Your task to perform on an android device: turn off airplane mode Image 0: 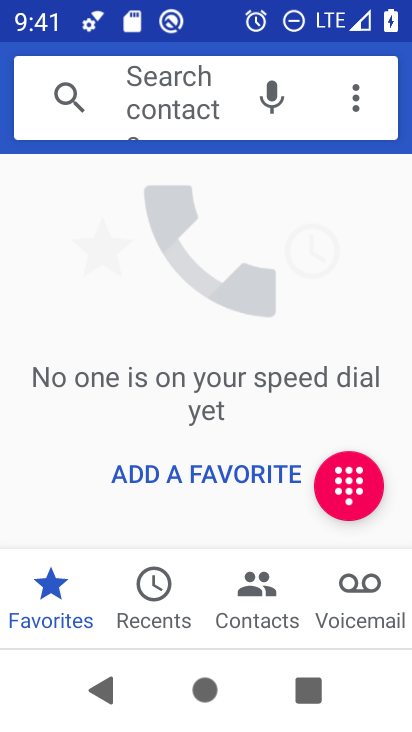
Step 0: drag from (278, 14) to (243, 651)
Your task to perform on an android device: turn off airplane mode Image 1: 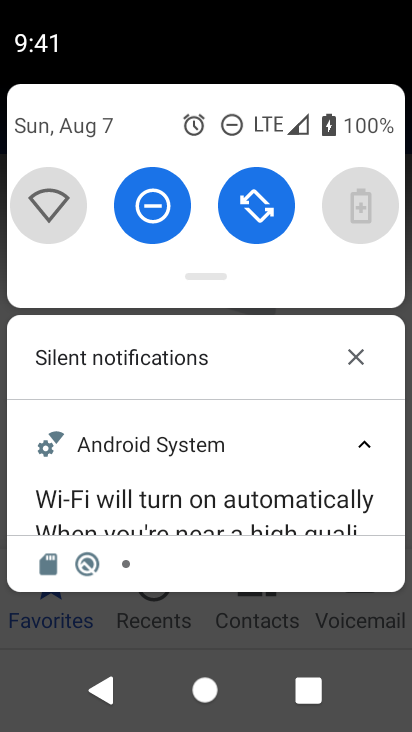
Step 1: task complete